Your task to perform on an android device: Go to accessibility settings Image 0: 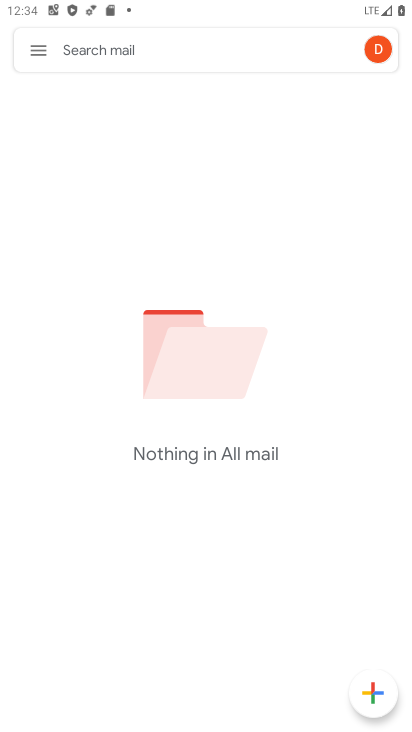
Step 0: press home button
Your task to perform on an android device: Go to accessibility settings Image 1: 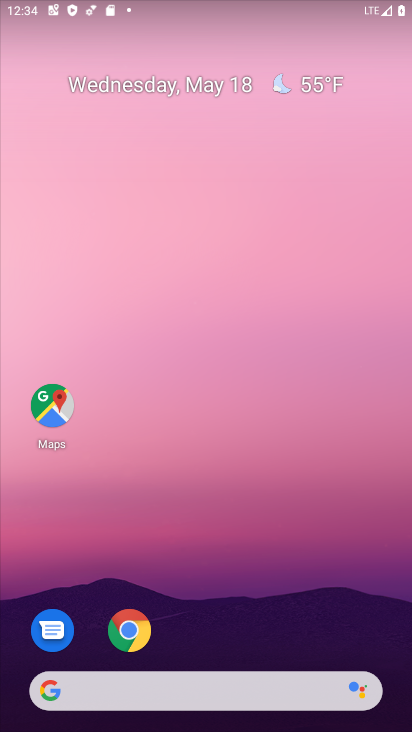
Step 1: drag from (206, 658) to (295, 198)
Your task to perform on an android device: Go to accessibility settings Image 2: 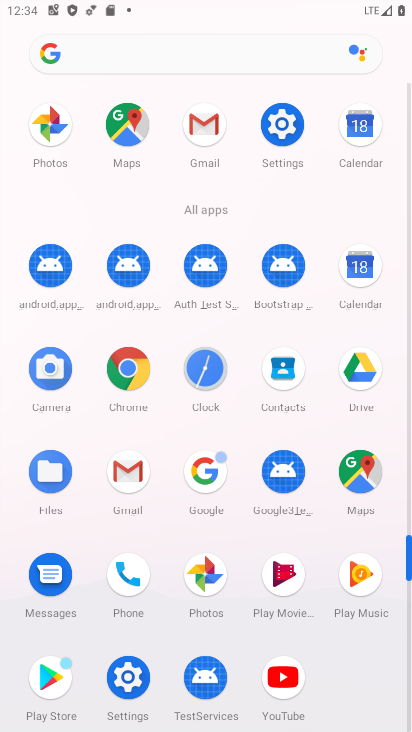
Step 2: click (119, 683)
Your task to perform on an android device: Go to accessibility settings Image 3: 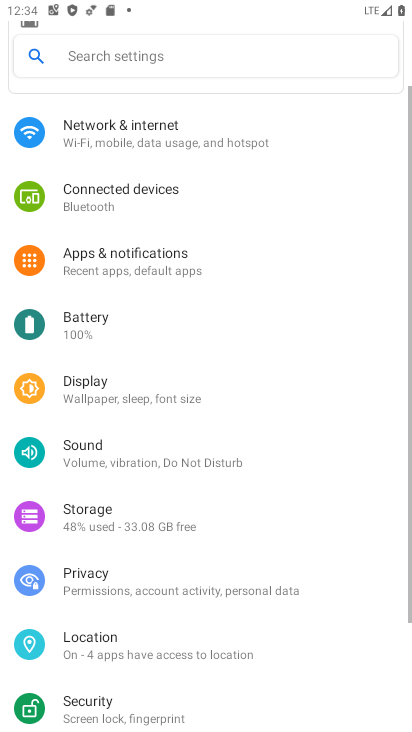
Step 3: drag from (155, 658) to (260, 235)
Your task to perform on an android device: Go to accessibility settings Image 4: 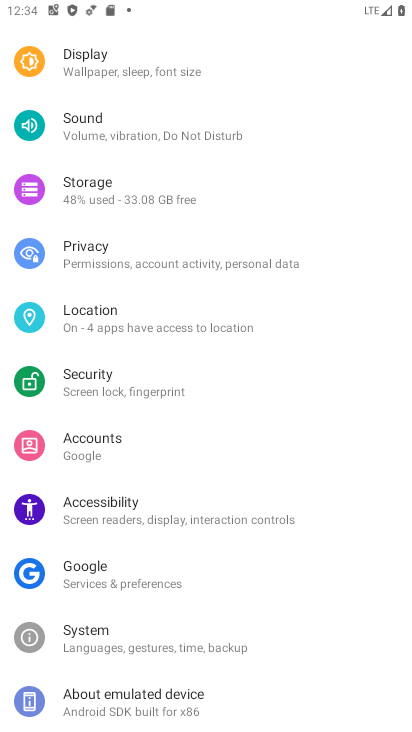
Step 4: click (148, 512)
Your task to perform on an android device: Go to accessibility settings Image 5: 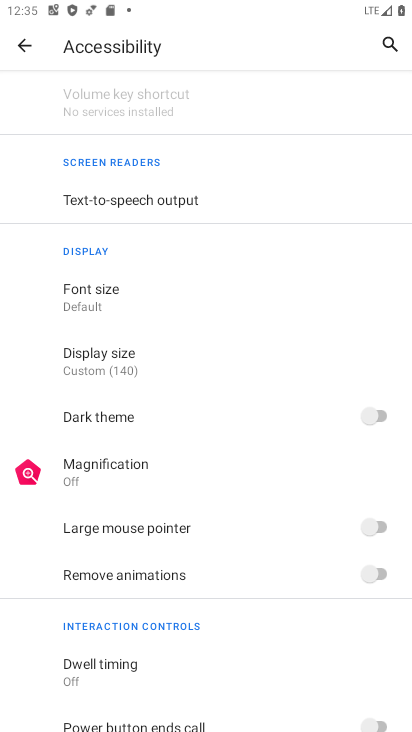
Step 5: task complete